Your task to perform on an android device: turn on sleep mode Image 0: 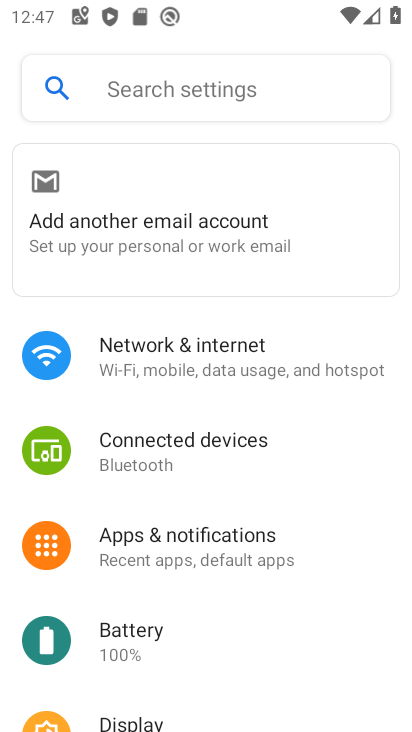
Step 0: drag from (222, 507) to (350, 289)
Your task to perform on an android device: turn on sleep mode Image 1: 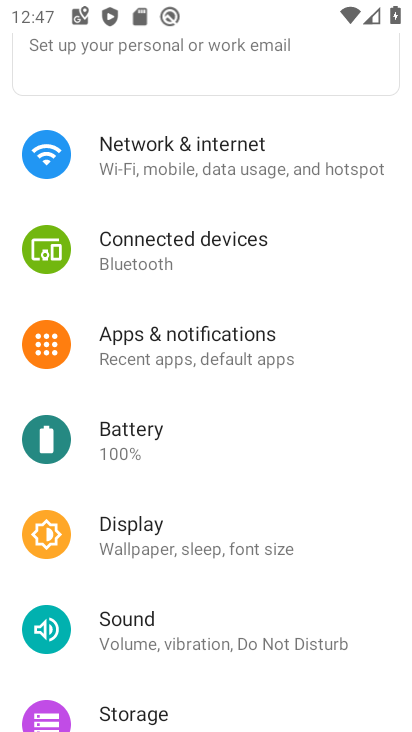
Step 1: drag from (267, 540) to (383, 307)
Your task to perform on an android device: turn on sleep mode Image 2: 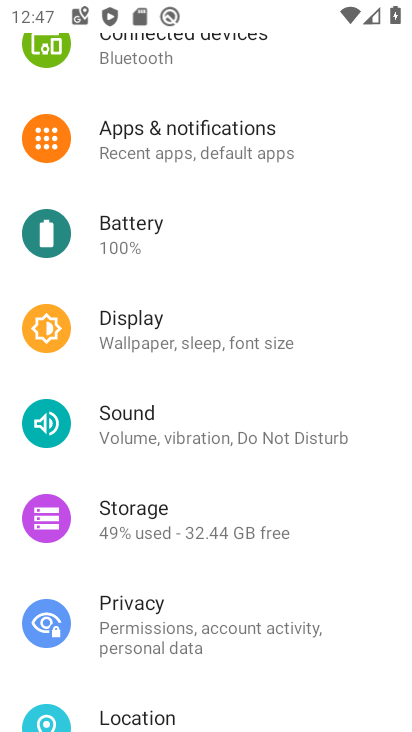
Step 2: click (203, 341)
Your task to perform on an android device: turn on sleep mode Image 3: 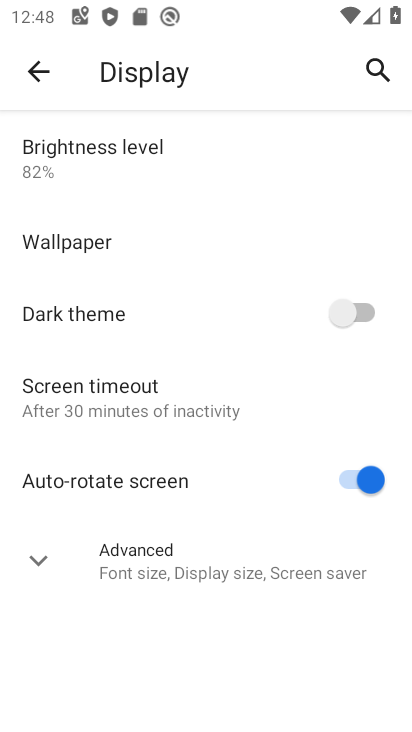
Step 3: task complete